Your task to perform on an android device: Open Google Chrome and click the shortcut for Amazon.com Image 0: 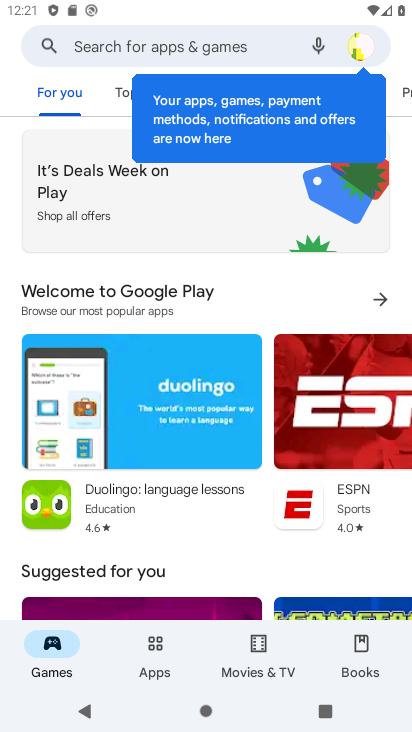
Step 0: press home button
Your task to perform on an android device: Open Google Chrome and click the shortcut for Amazon.com Image 1: 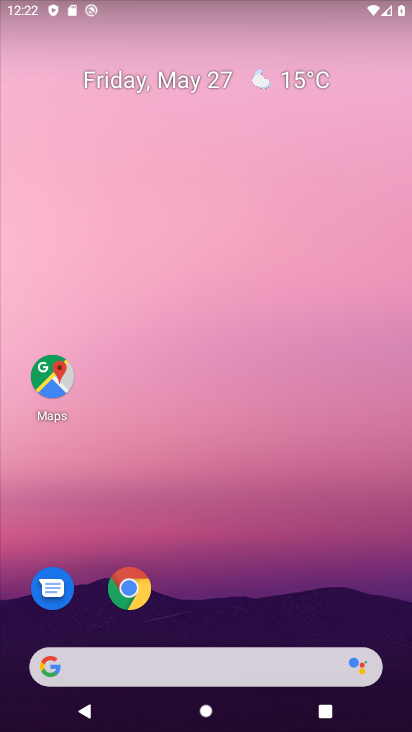
Step 1: click (129, 585)
Your task to perform on an android device: Open Google Chrome and click the shortcut for Amazon.com Image 2: 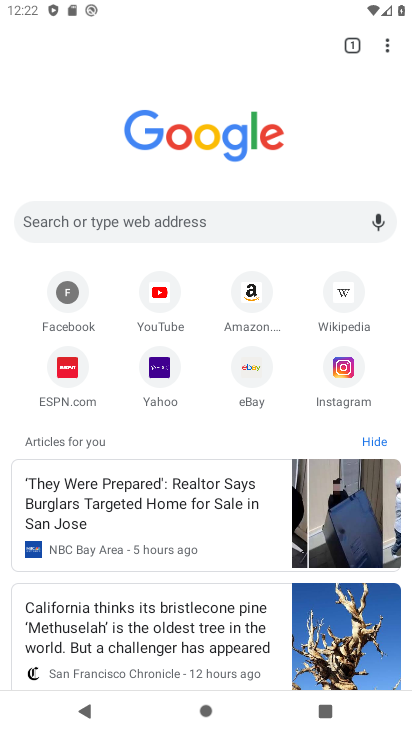
Step 2: click (248, 292)
Your task to perform on an android device: Open Google Chrome and click the shortcut for Amazon.com Image 3: 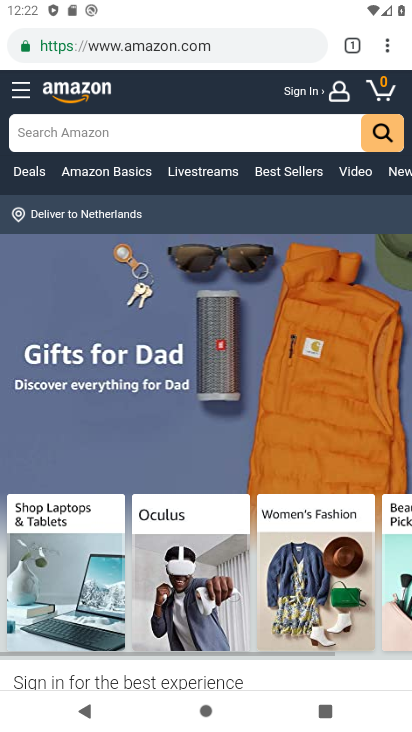
Step 3: task complete